Your task to perform on an android device: change the clock display to show seconds Image 0: 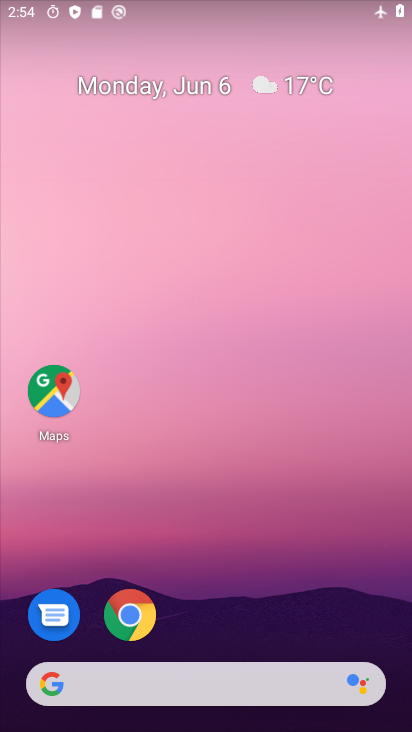
Step 0: drag from (243, 635) to (364, 92)
Your task to perform on an android device: change the clock display to show seconds Image 1: 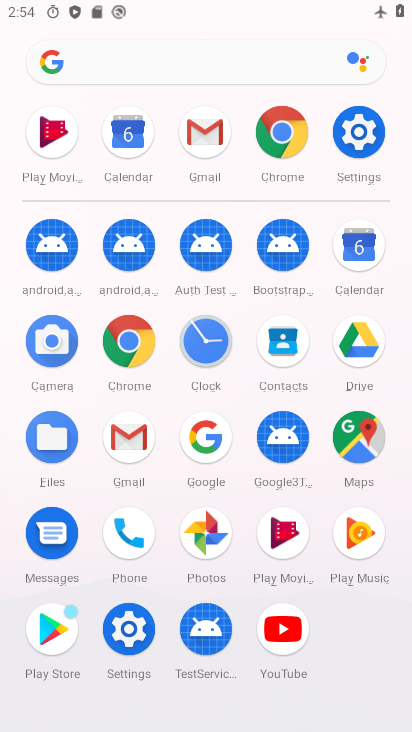
Step 1: click (212, 346)
Your task to perform on an android device: change the clock display to show seconds Image 2: 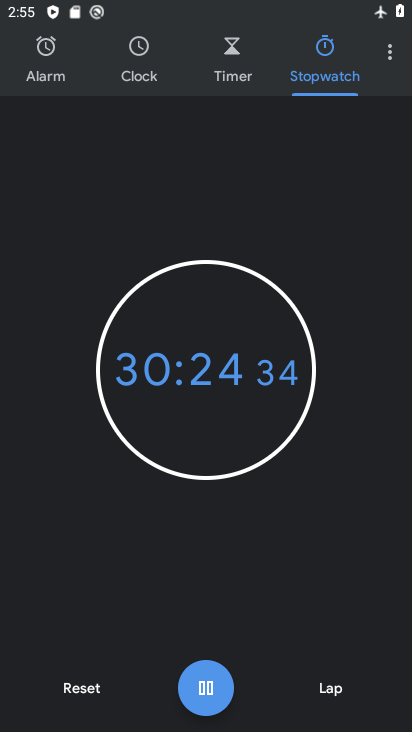
Step 2: click (84, 674)
Your task to perform on an android device: change the clock display to show seconds Image 3: 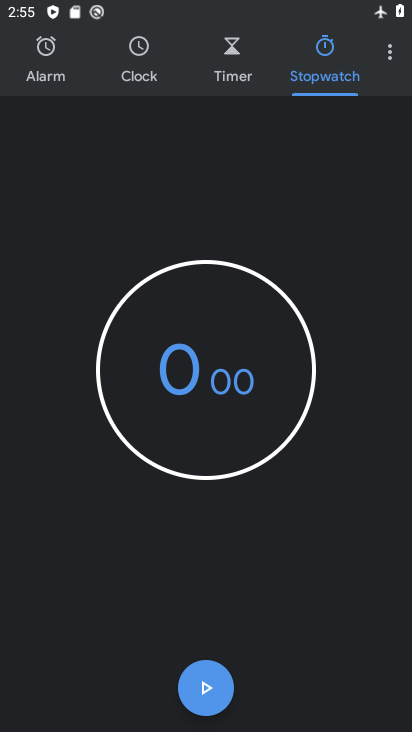
Step 3: click (395, 62)
Your task to perform on an android device: change the clock display to show seconds Image 4: 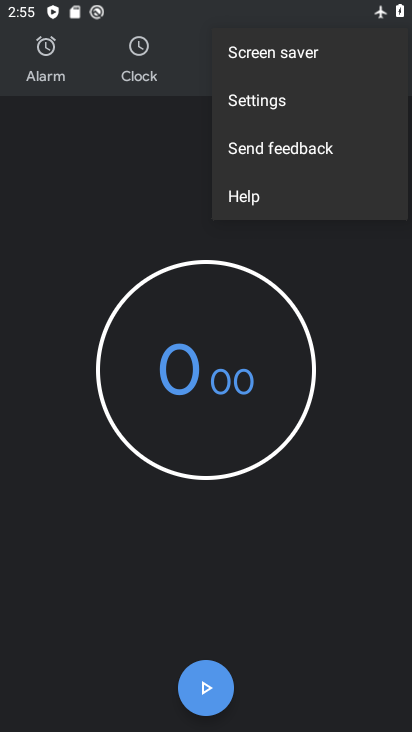
Step 4: click (306, 108)
Your task to perform on an android device: change the clock display to show seconds Image 5: 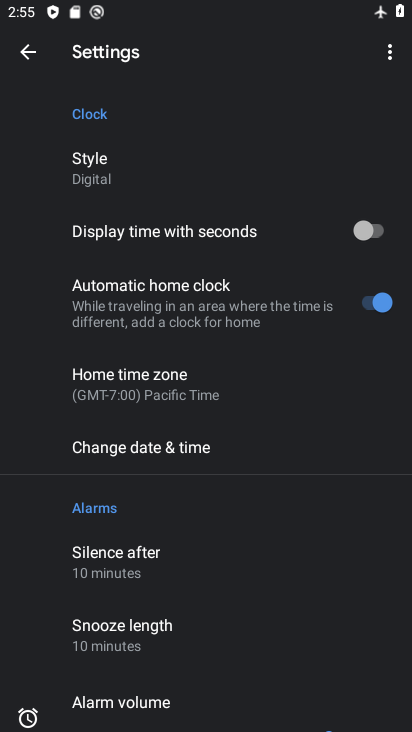
Step 5: click (100, 185)
Your task to perform on an android device: change the clock display to show seconds Image 6: 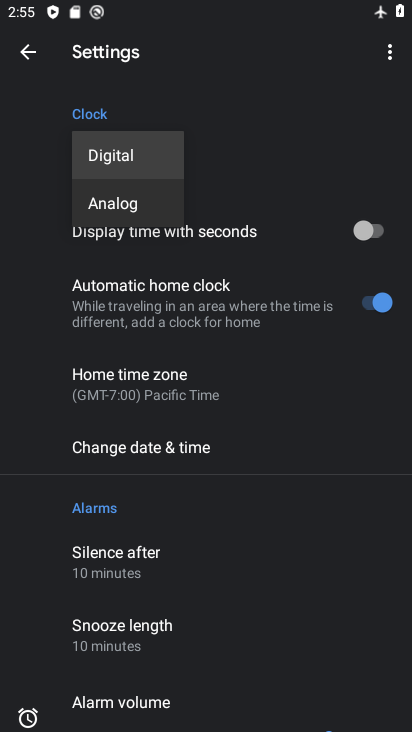
Step 6: click (141, 200)
Your task to perform on an android device: change the clock display to show seconds Image 7: 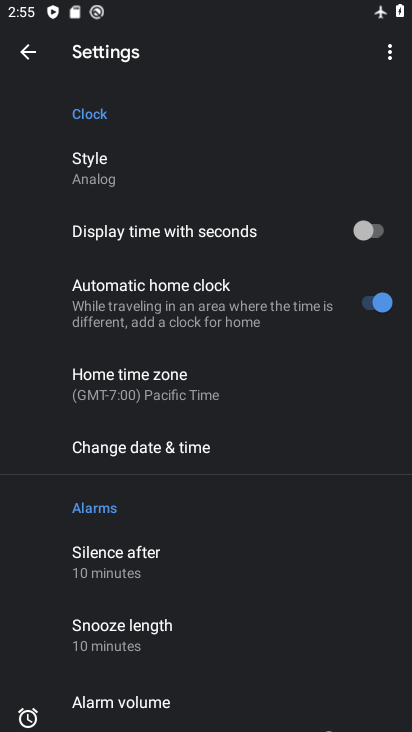
Step 7: click (379, 230)
Your task to perform on an android device: change the clock display to show seconds Image 8: 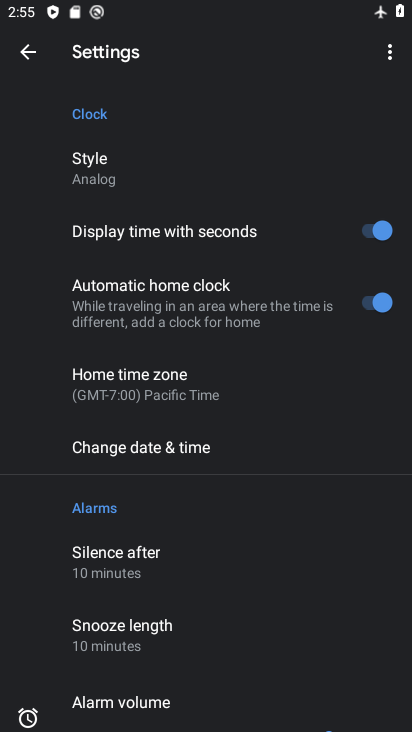
Step 8: task complete